Your task to perform on an android device: check storage Image 0: 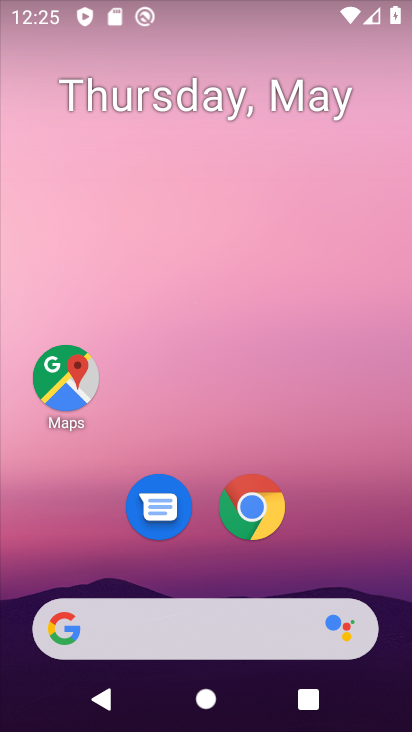
Step 0: drag from (208, 598) to (203, 188)
Your task to perform on an android device: check storage Image 1: 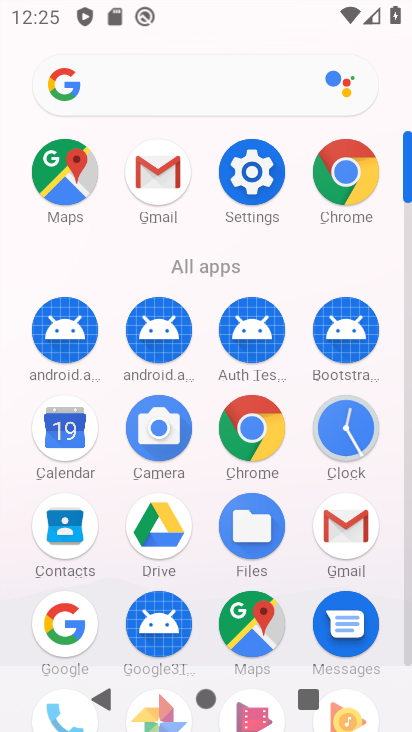
Step 1: click (252, 170)
Your task to perform on an android device: check storage Image 2: 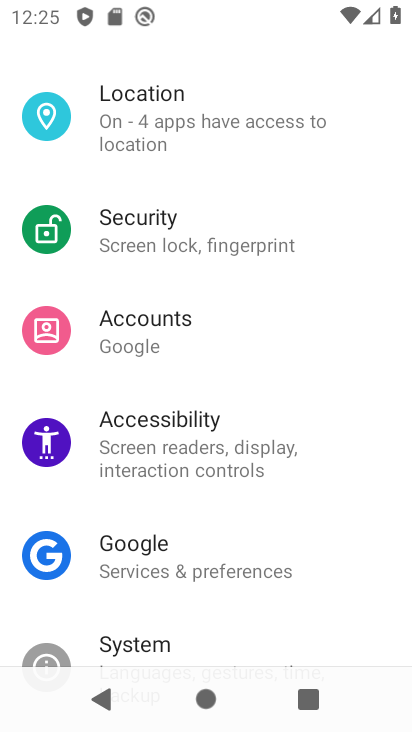
Step 2: drag from (195, 117) to (190, 561)
Your task to perform on an android device: check storage Image 3: 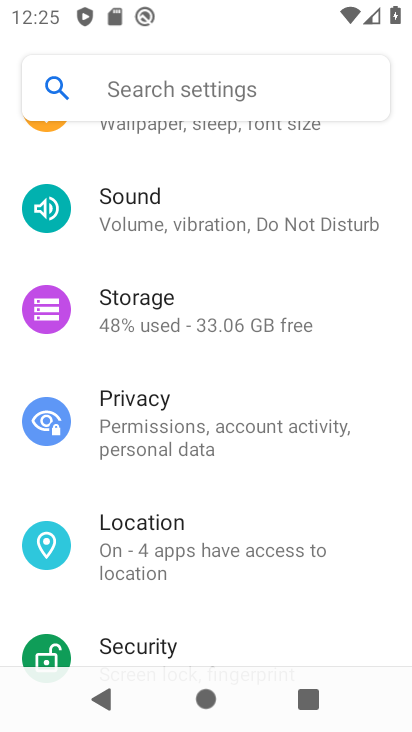
Step 3: click (156, 303)
Your task to perform on an android device: check storage Image 4: 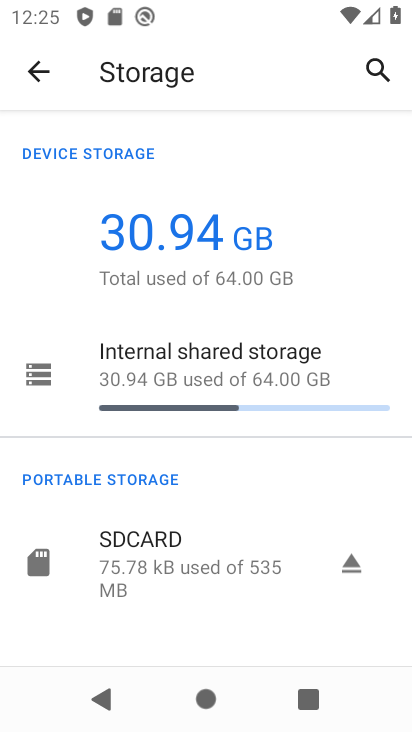
Step 4: task complete